Your task to perform on an android device: refresh tabs in the chrome app Image 0: 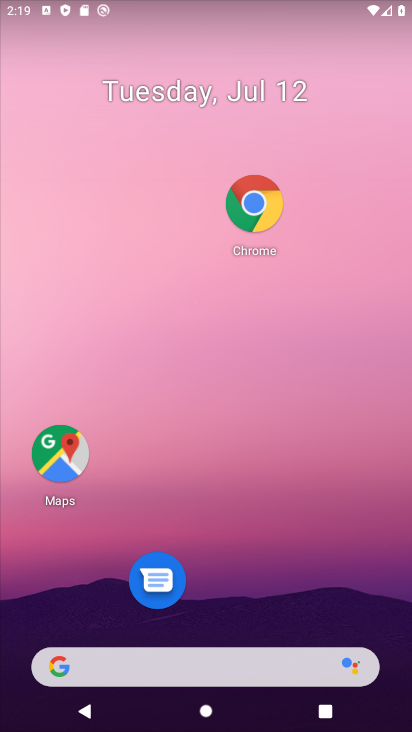
Step 0: click (260, 189)
Your task to perform on an android device: refresh tabs in the chrome app Image 1: 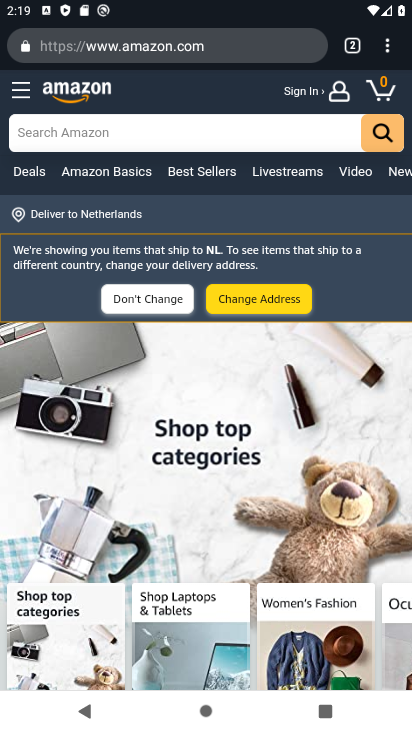
Step 1: click (385, 50)
Your task to perform on an android device: refresh tabs in the chrome app Image 2: 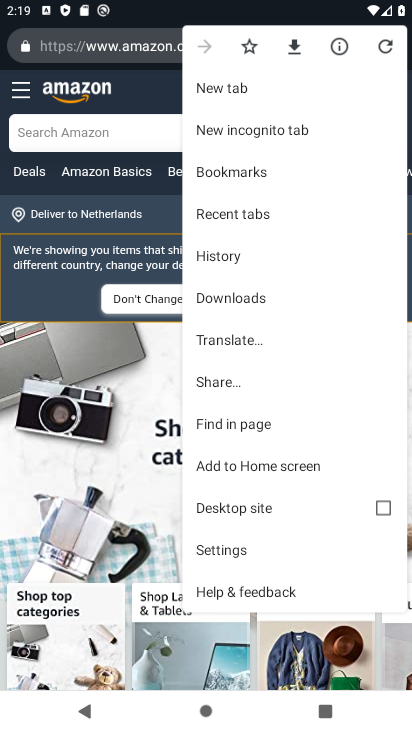
Step 2: click (382, 50)
Your task to perform on an android device: refresh tabs in the chrome app Image 3: 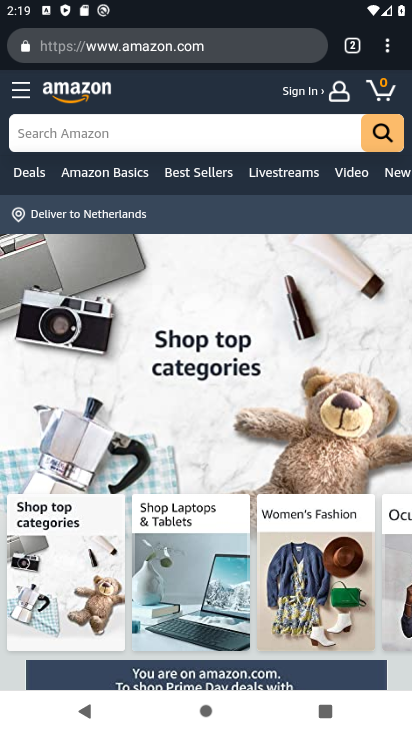
Step 3: task complete